Your task to perform on an android device: Open wifi settings Image 0: 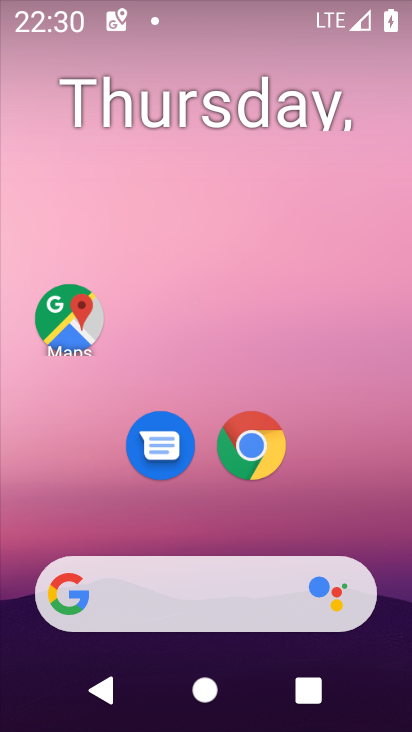
Step 0: drag from (184, 512) to (253, 143)
Your task to perform on an android device: Open wifi settings Image 1: 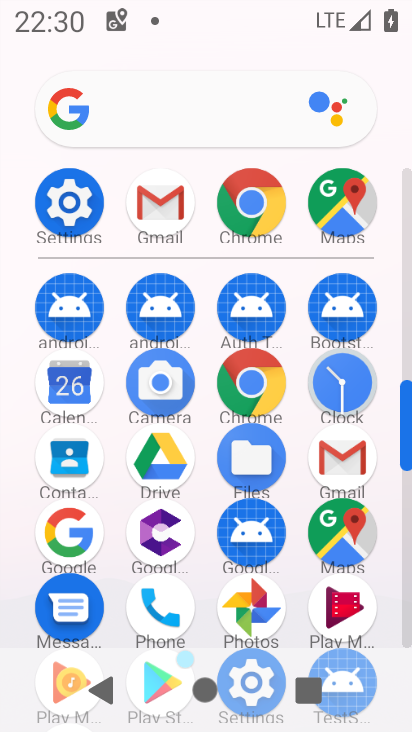
Step 1: drag from (207, 267) to (206, 70)
Your task to perform on an android device: Open wifi settings Image 2: 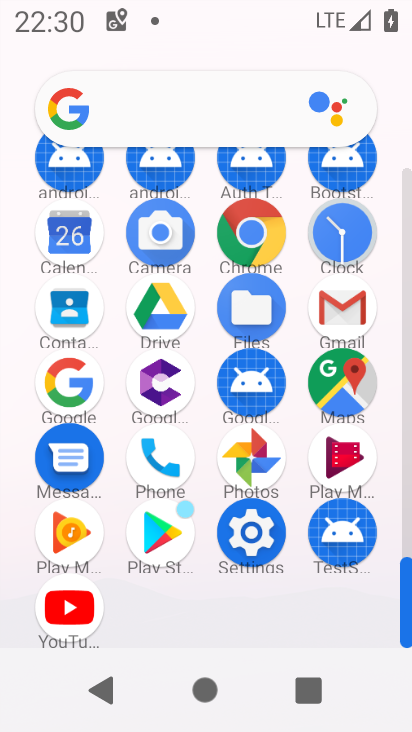
Step 2: click (271, 530)
Your task to perform on an android device: Open wifi settings Image 3: 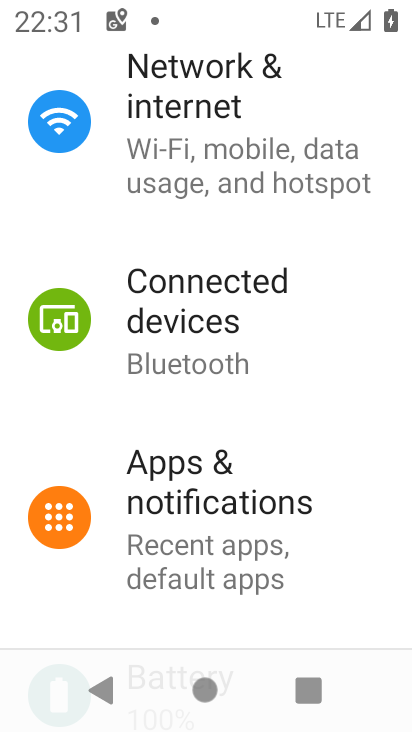
Step 3: drag from (236, 200) to (226, 596)
Your task to perform on an android device: Open wifi settings Image 4: 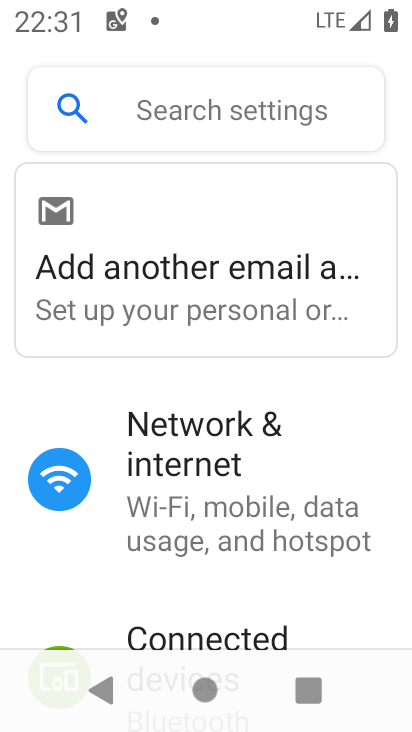
Step 4: click (211, 488)
Your task to perform on an android device: Open wifi settings Image 5: 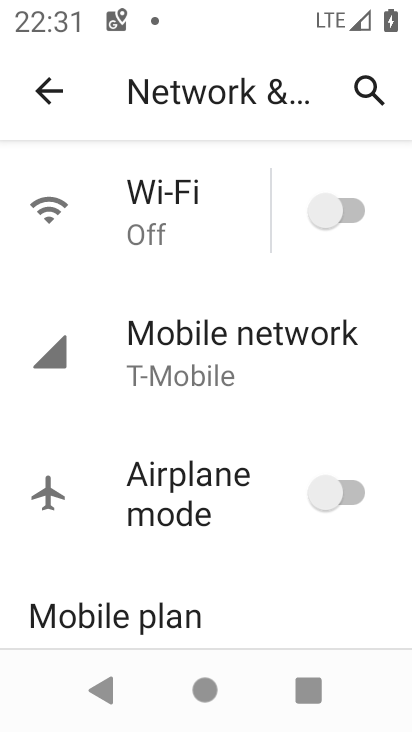
Step 5: click (147, 227)
Your task to perform on an android device: Open wifi settings Image 6: 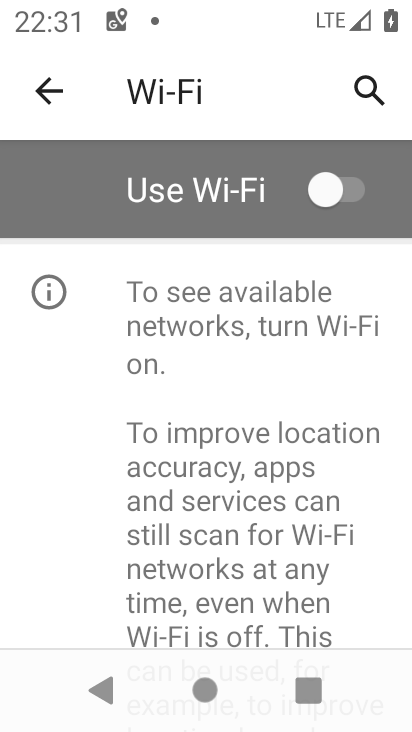
Step 6: task complete